Your task to perform on an android device: Open Reddit.com Image 0: 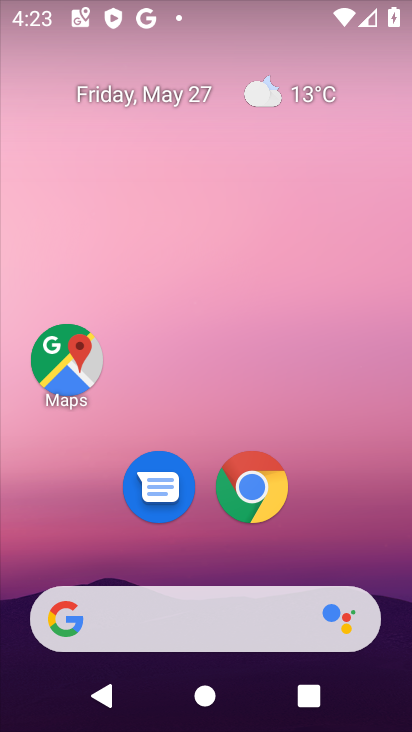
Step 0: drag from (330, 488) to (319, 3)
Your task to perform on an android device: Open Reddit.com Image 1: 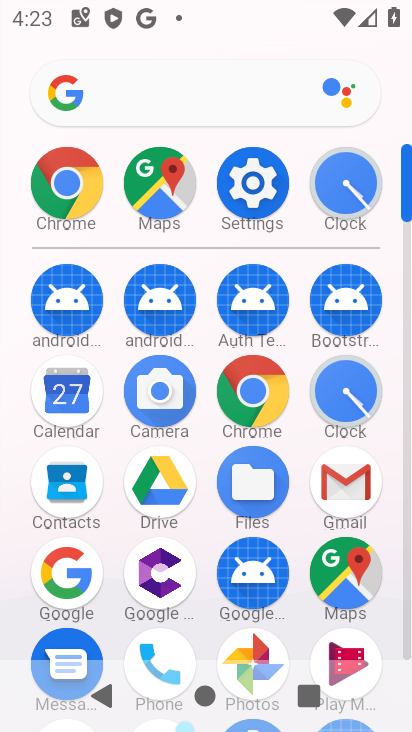
Step 1: click (258, 394)
Your task to perform on an android device: Open Reddit.com Image 2: 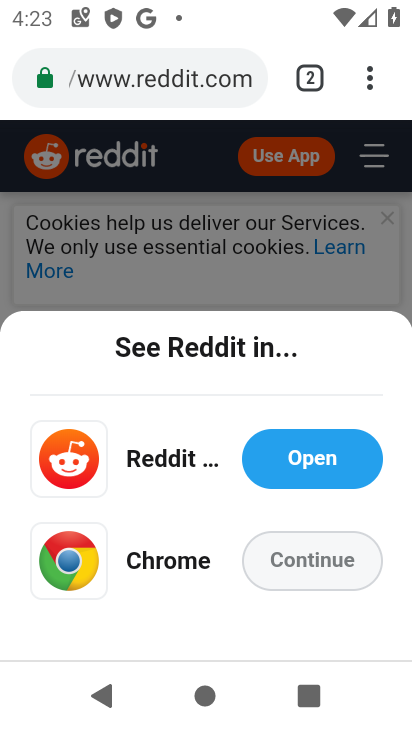
Step 2: task complete